Your task to perform on an android device: Go to battery settings Image 0: 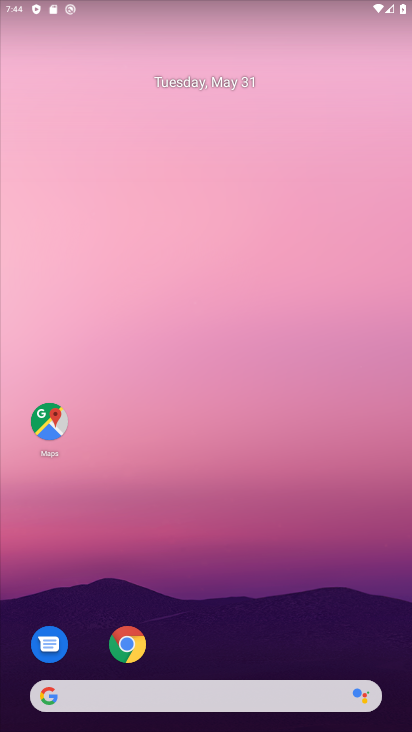
Step 0: drag from (204, 731) to (329, 10)
Your task to perform on an android device: Go to battery settings Image 1: 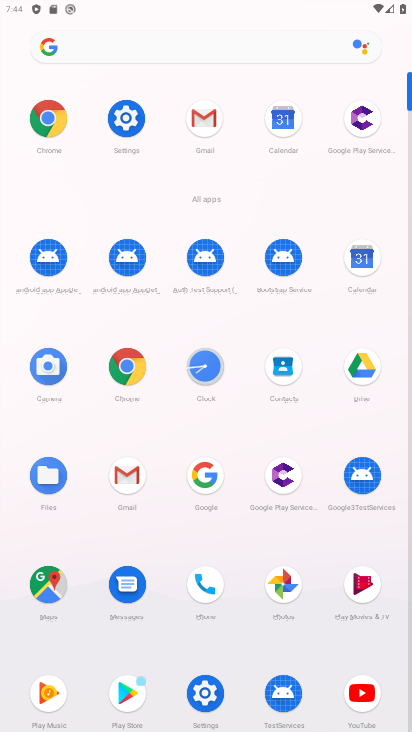
Step 1: click (122, 121)
Your task to perform on an android device: Go to battery settings Image 2: 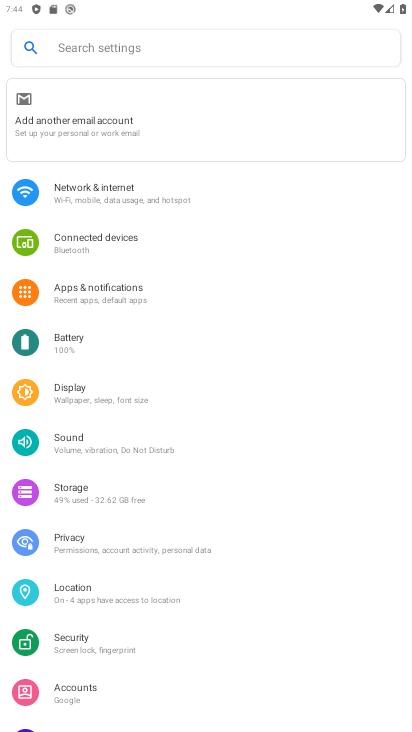
Step 2: click (116, 336)
Your task to perform on an android device: Go to battery settings Image 3: 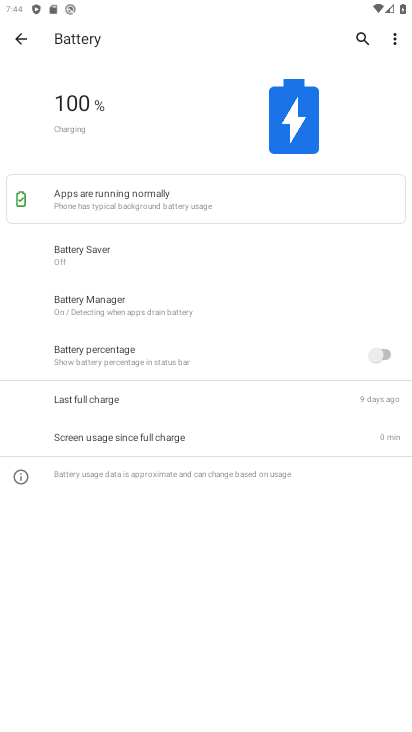
Step 3: task complete